Your task to perform on an android device: Open privacy settings Image 0: 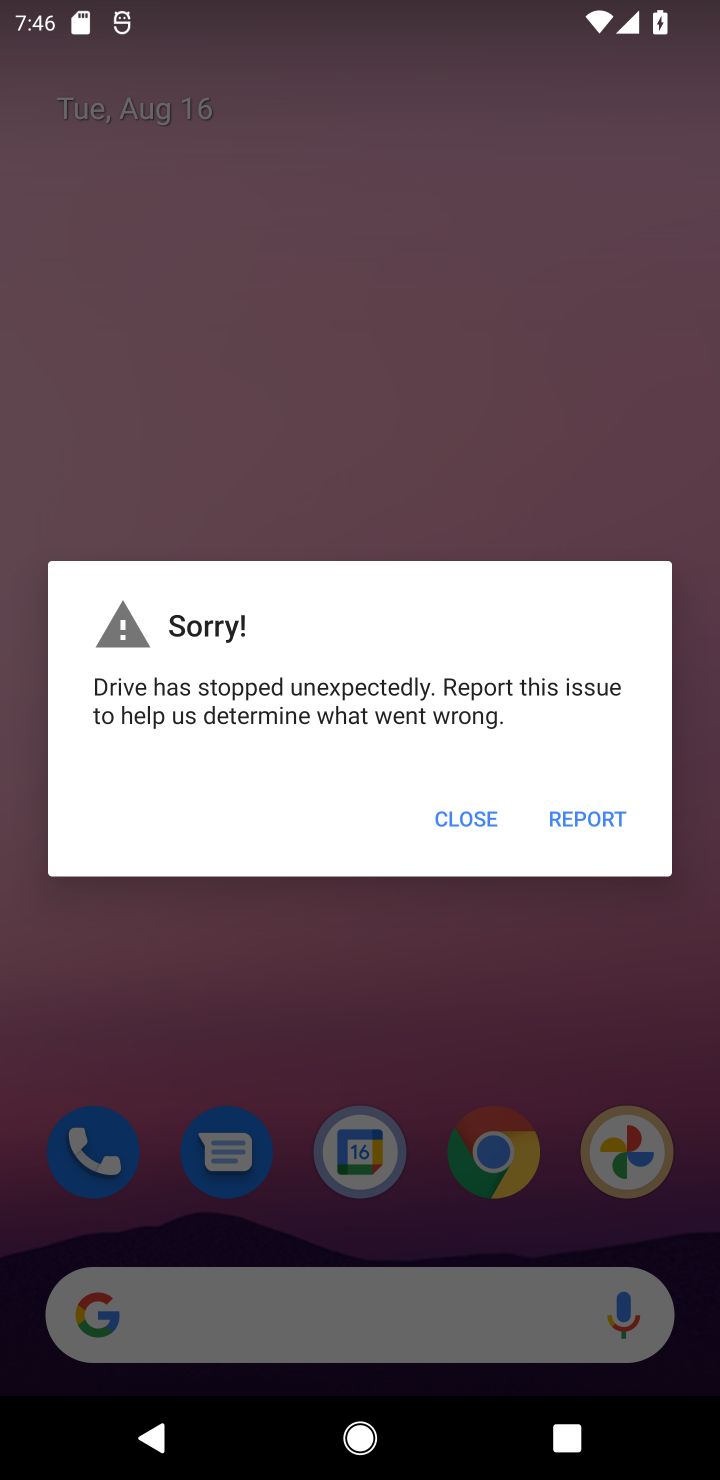
Step 0: press home button
Your task to perform on an android device: Open privacy settings Image 1: 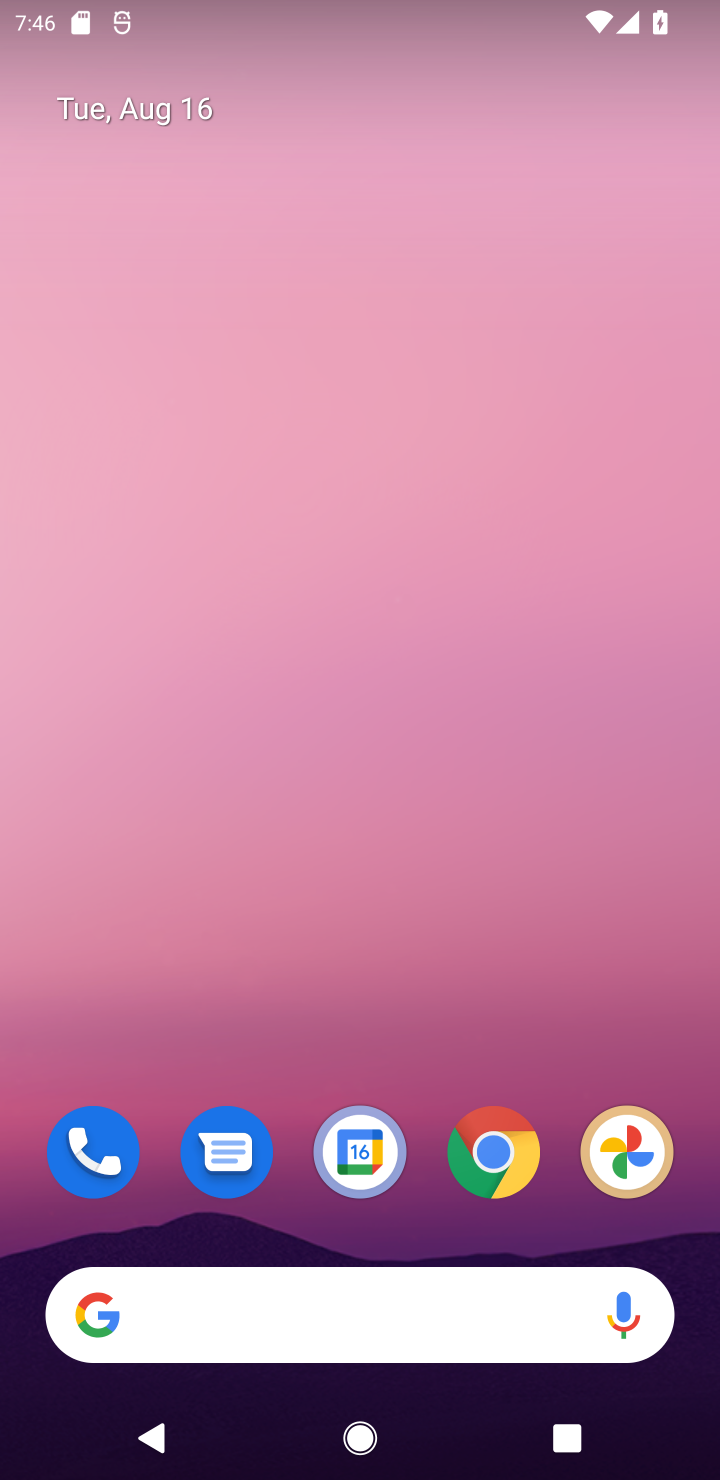
Step 1: drag from (331, 1146) to (362, 200)
Your task to perform on an android device: Open privacy settings Image 2: 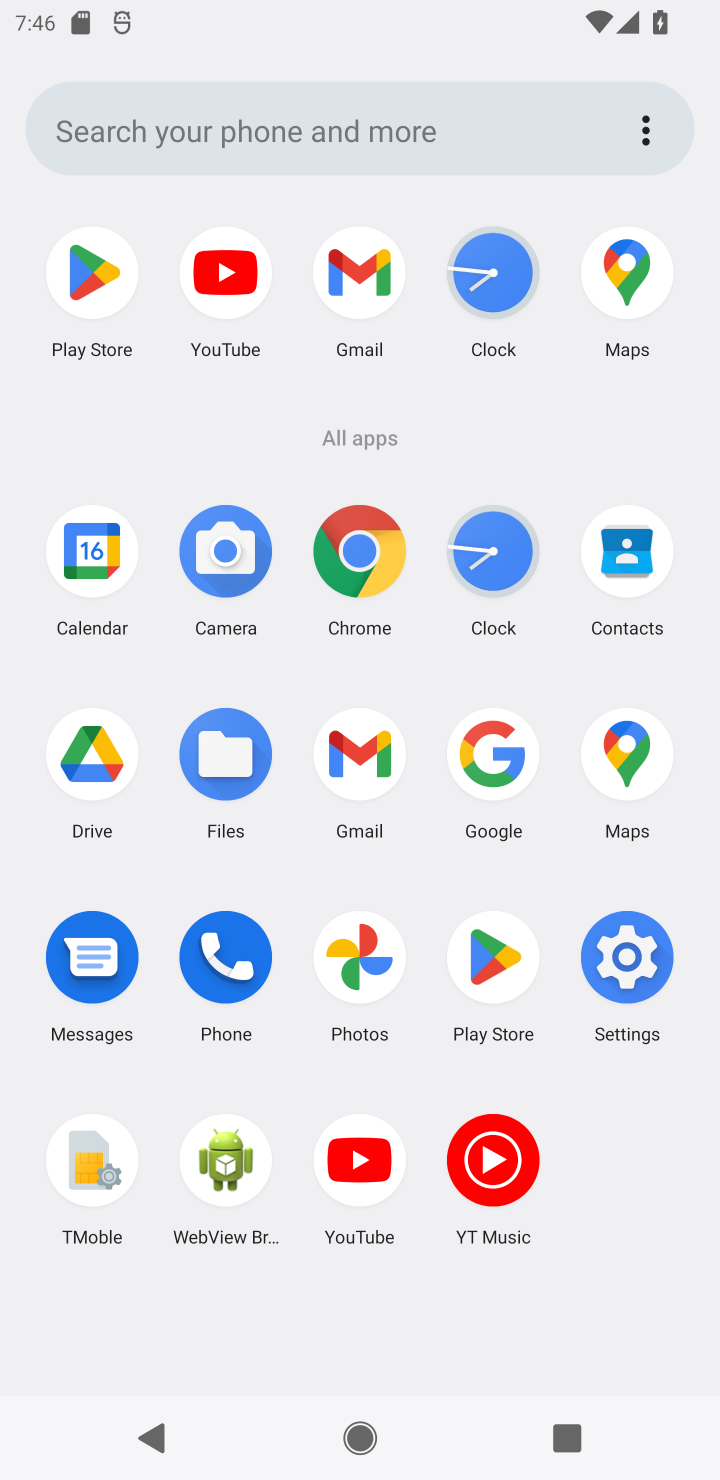
Step 2: click (631, 944)
Your task to perform on an android device: Open privacy settings Image 3: 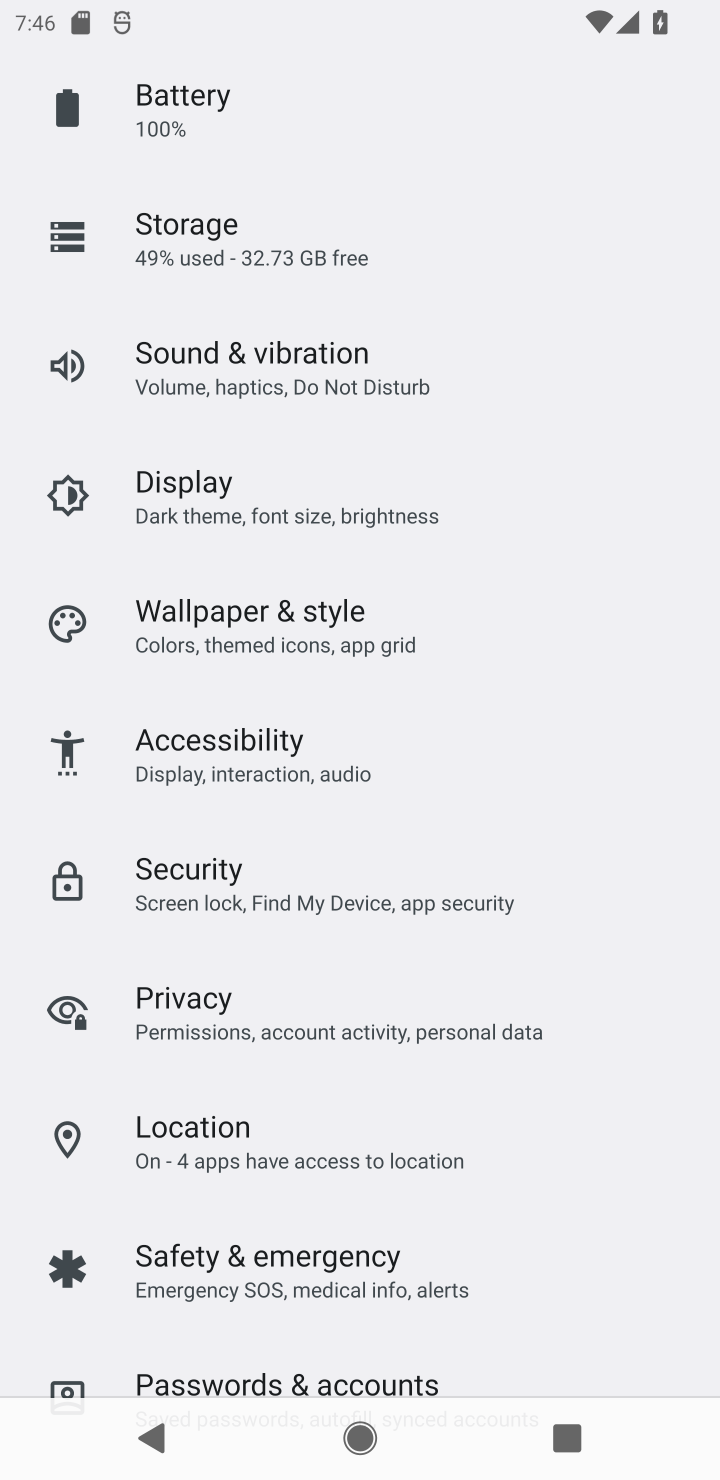
Step 3: click (193, 1017)
Your task to perform on an android device: Open privacy settings Image 4: 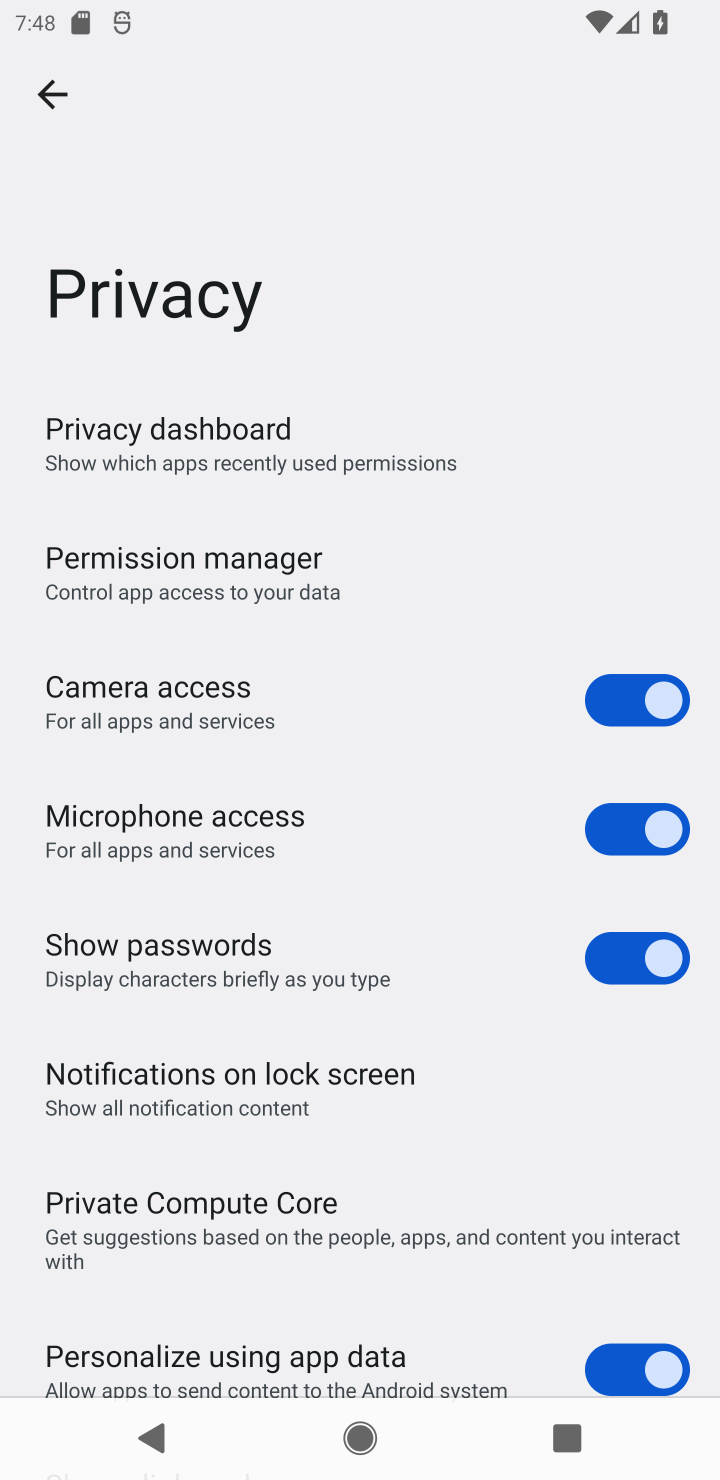
Step 4: task complete